Your task to perform on an android device: set the timer Image 0: 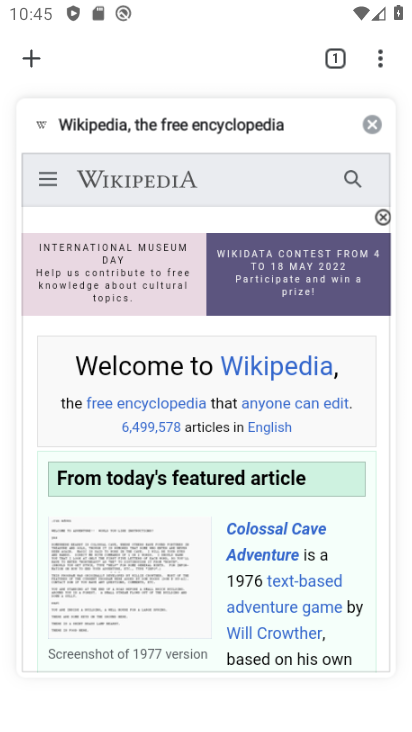
Step 0: press home button
Your task to perform on an android device: set the timer Image 1: 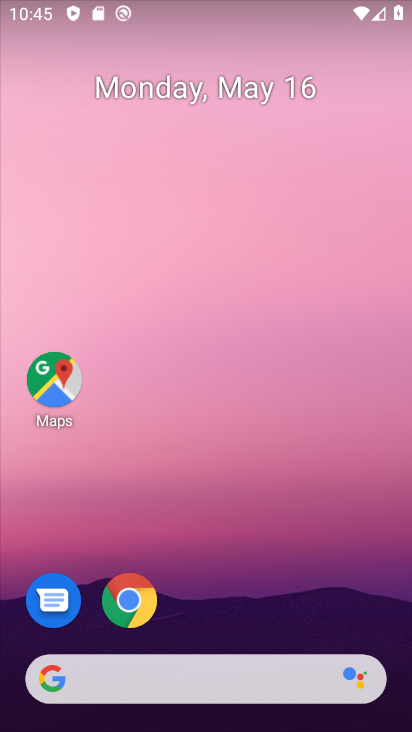
Step 1: drag from (297, 404) to (327, 187)
Your task to perform on an android device: set the timer Image 2: 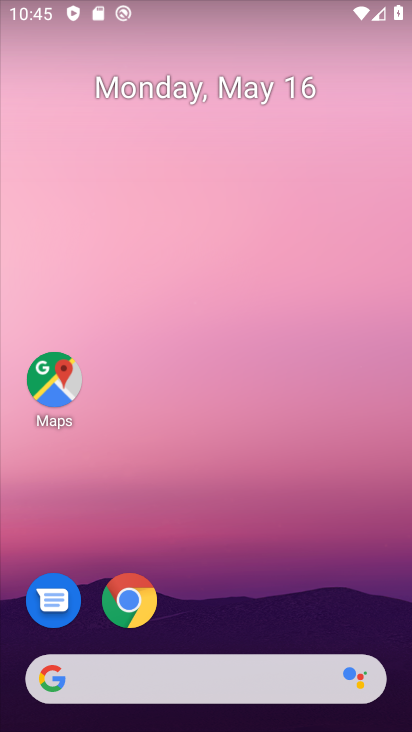
Step 2: drag from (164, 479) to (407, 142)
Your task to perform on an android device: set the timer Image 3: 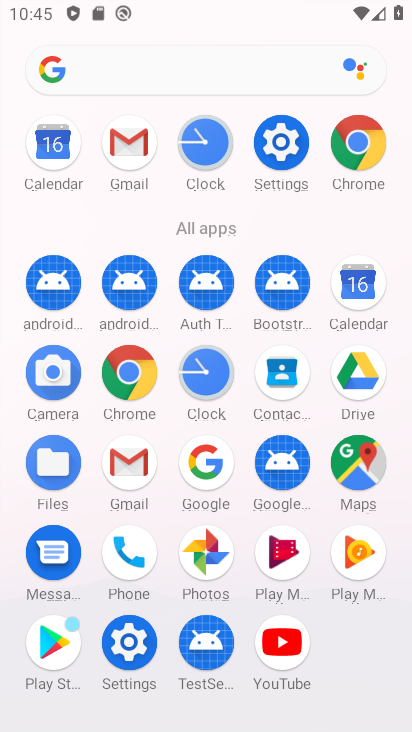
Step 3: click (198, 368)
Your task to perform on an android device: set the timer Image 4: 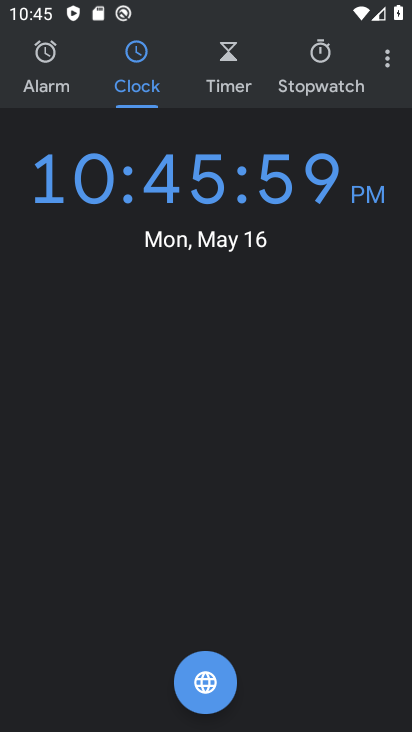
Step 4: click (216, 80)
Your task to perform on an android device: set the timer Image 5: 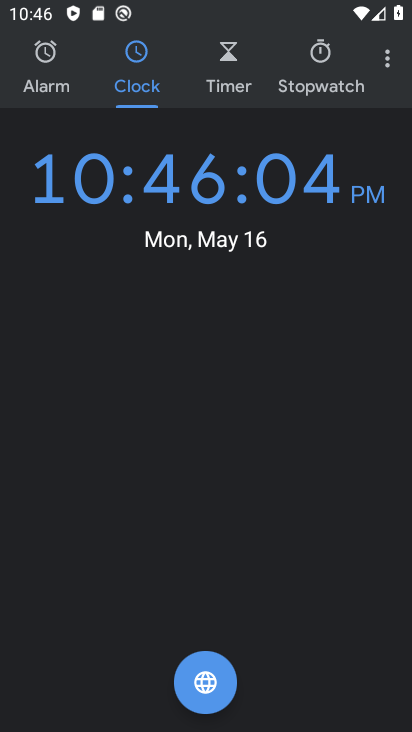
Step 5: click (226, 92)
Your task to perform on an android device: set the timer Image 6: 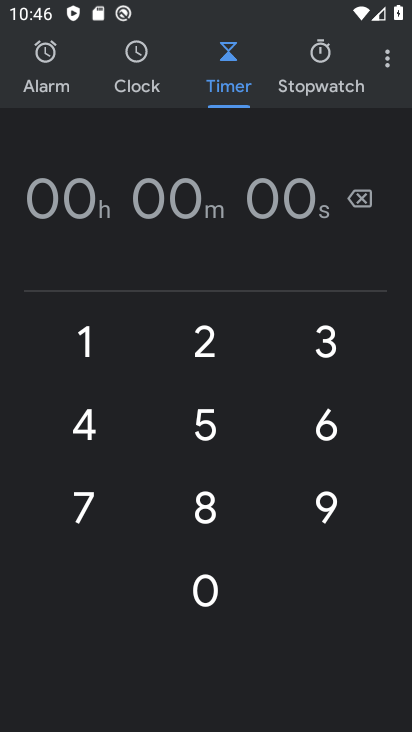
Step 6: click (231, 330)
Your task to perform on an android device: set the timer Image 7: 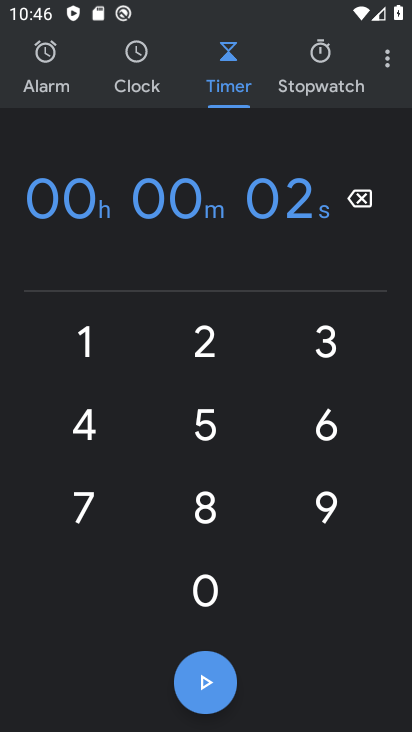
Step 7: task complete